Your task to perform on an android device: Open Google Maps and go to "Timeline" Image 0: 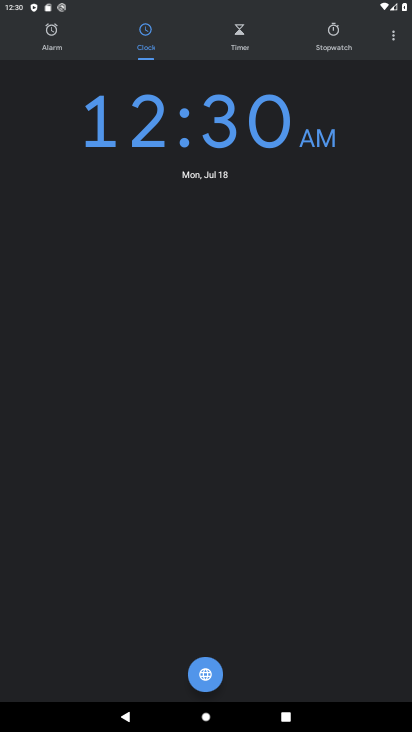
Step 0: press home button
Your task to perform on an android device: Open Google Maps and go to "Timeline" Image 1: 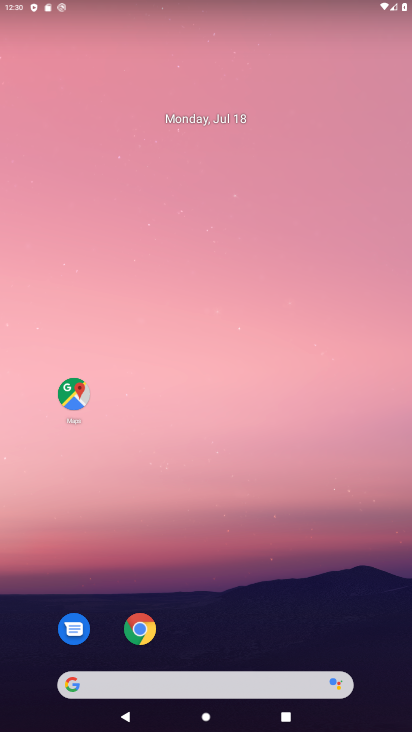
Step 1: click (262, 586)
Your task to perform on an android device: Open Google Maps and go to "Timeline" Image 2: 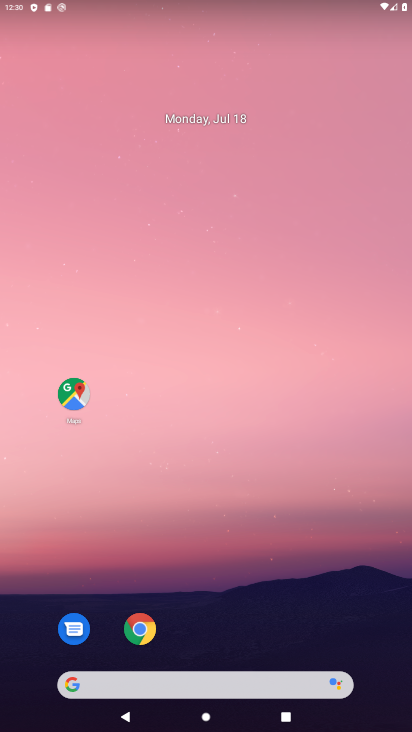
Step 2: click (82, 394)
Your task to perform on an android device: Open Google Maps and go to "Timeline" Image 3: 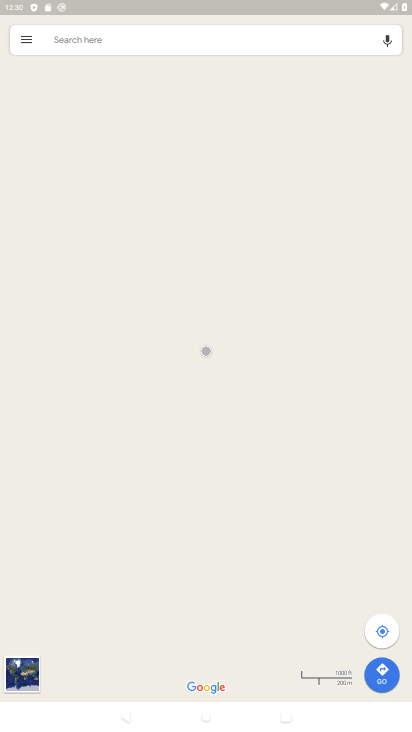
Step 3: click (27, 39)
Your task to perform on an android device: Open Google Maps and go to "Timeline" Image 4: 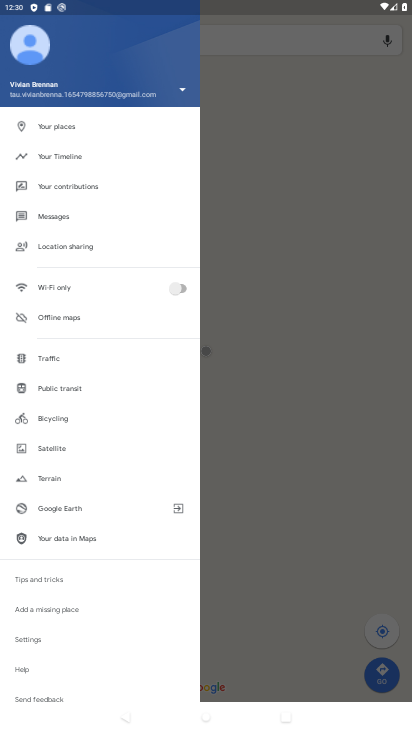
Step 4: click (72, 154)
Your task to perform on an android device: Open Google Maps and go to "Timeline" Image 5: 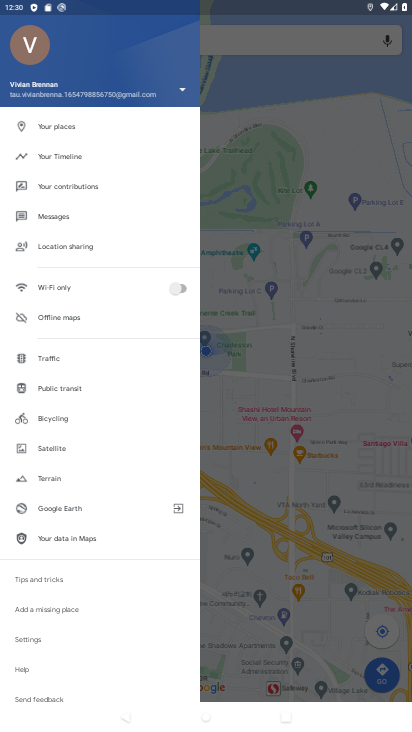
Step 5: click (72, 154)
Your task to perform on an android device: Open Google Maps and go to "Timeline" Image 6: 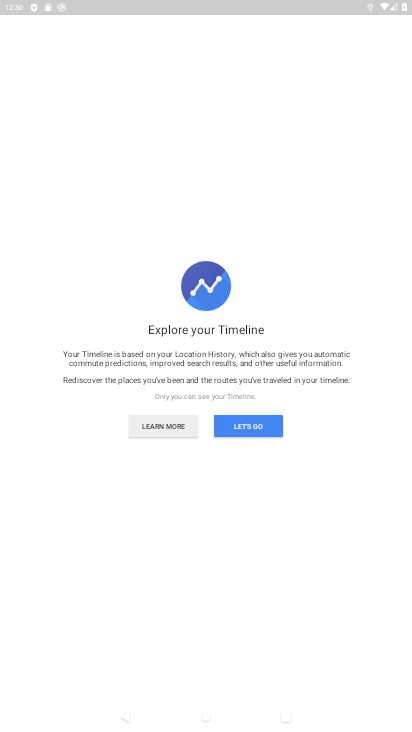
Step 6: click (260, 432)
Your task to perform on an android device: Open Google Maps and go to "Timeline" Image 7: 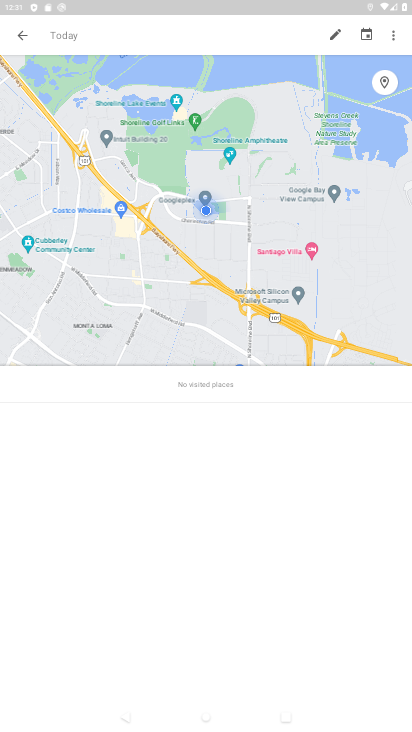
Step 7: task complete